Your task to perform on an android device: Clear the shopping cart on target.com. Search for asus zenbook on target.com, select the first entry, add it to the cart, then select checkout. Image 0: 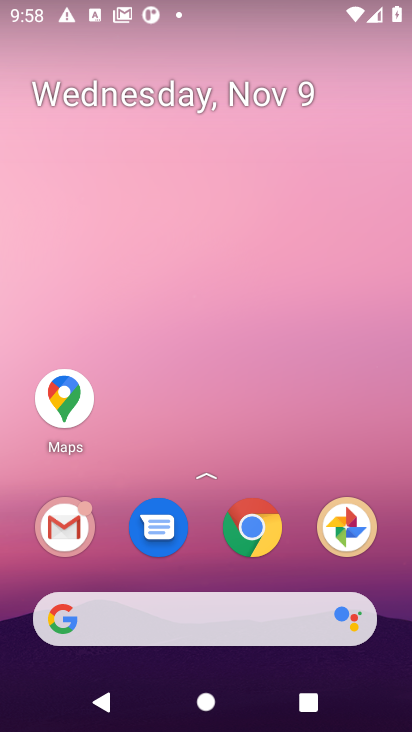
Step 0: click (252, 525)
Your task to perform on an android device: Clear the shopping cart on target.com. Search for asus zenbook on target.com, select the first entry, add it to the cart, then select checkout. Image 1: 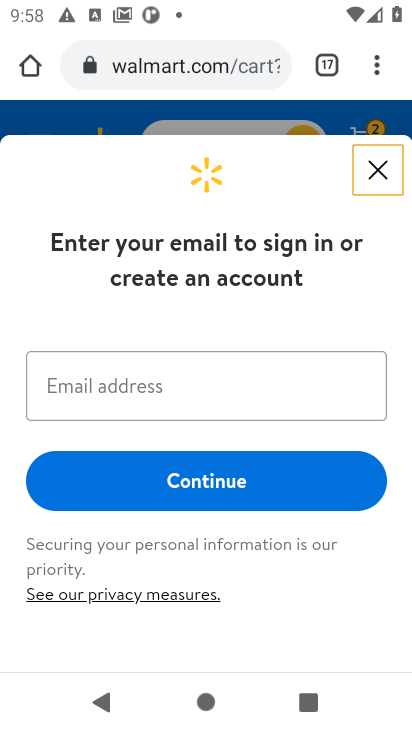
Step 1: click (222, 66)
Your task to perform on an android device: Clear the shopping cart on target.com. Search for asus zenbook on target.com, select the first entry, add it to the cart, then select checkout. Image 2: 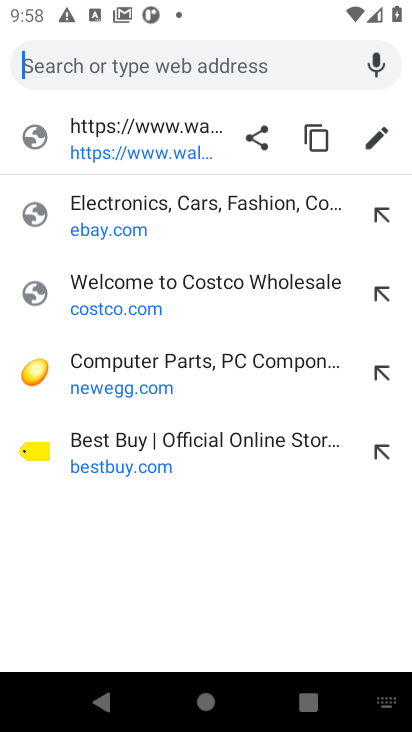
Step 2: type "target.com"
Your task to perform on an android device: Clear the shopping cart on target.com. Search for asus zenbook on target.com, select the first entry, add it to the cart, then select checkout. Image 3: 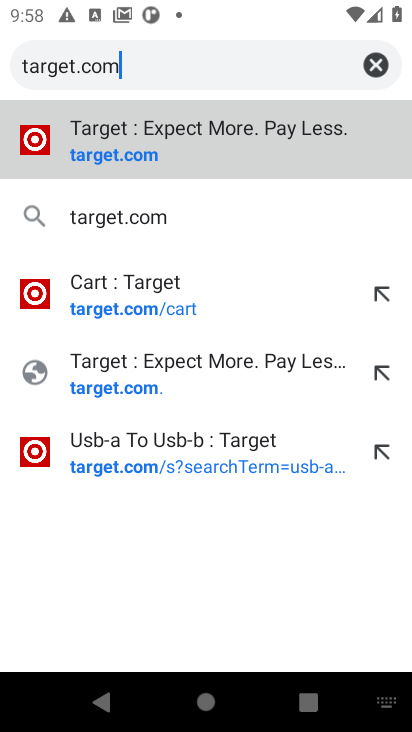
Step 3: click (136, 157)
Your task to perform on an android device: Clear the shopping cart on target.com. Search for asus zenbook on target.com, select the first entry, add it to the cart, then select checkout. Image 4: 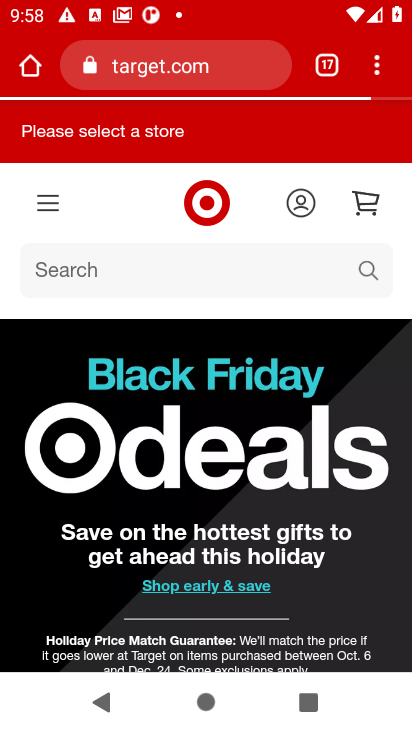
Step 4: click (367, 197)
Your task to perform on an android device: Clear the shopping cart on target.com. Search for asus zenbook on target.com, select the first entry, add it to the cart, then select checkout. Image 5: 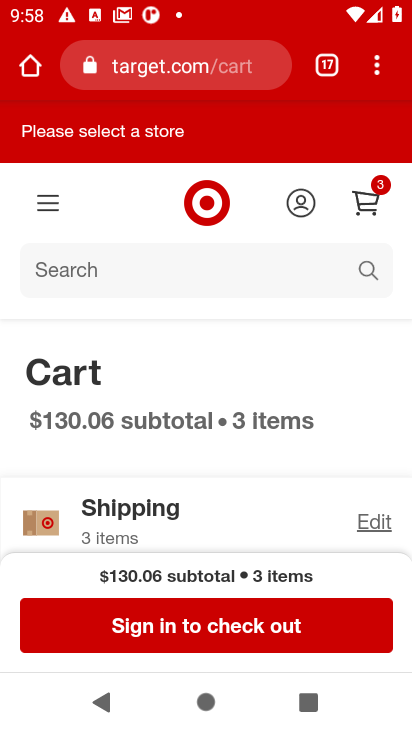
Step 5: drag from (220, 508) to (225, 216)
Your task to perform on an android device: Clear the shopping cart on target.com. Search for asus zenbook on target.com, select the first entry, add it to the cart, then select checkout. Image 6: 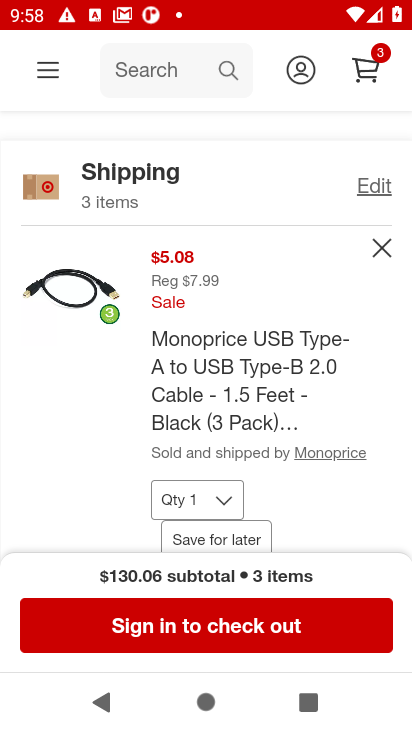
Step 6: click (378, 254)
Your task to perform on an android device: Clear the shopping cart on target.com. Search for asus zenbook on target.com, select the first entry, add it to the cart, then select checkout. Image 7: 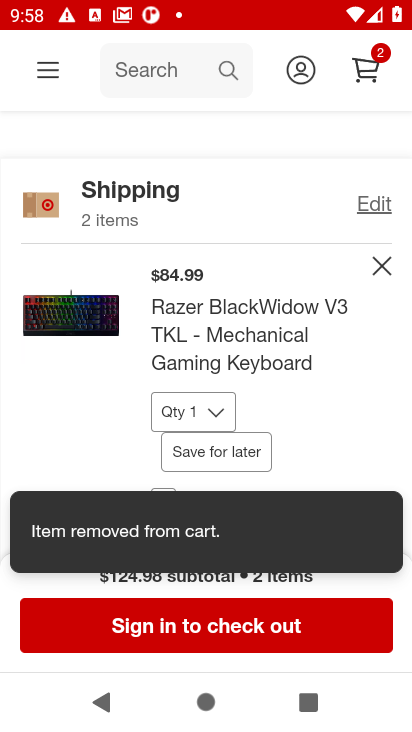
Step 7: click (379, 268)
Your task to perform on an android device: Clear the shopping cart on target.com. Search for asus zenbook on target.com, select the first entry, add it to the cart, then select checkout. Image 8: 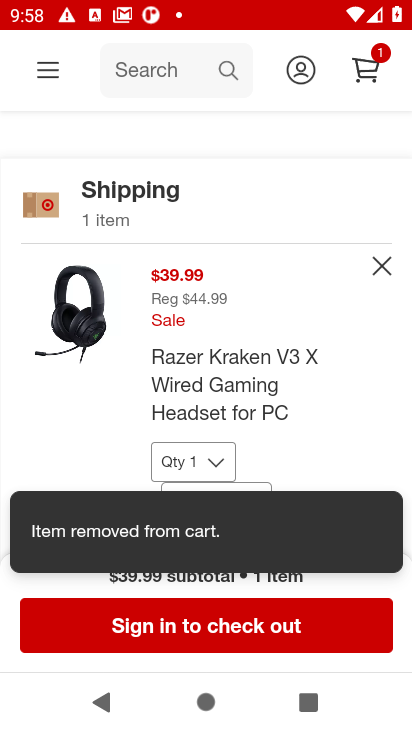
Step 8: click (379, 268)
Your task to perform on an android device: Clear the shopping cart on target.com. Search for asus zenbook on target.com, select the first entry, add it to the cart, then select checkout. Image 9: 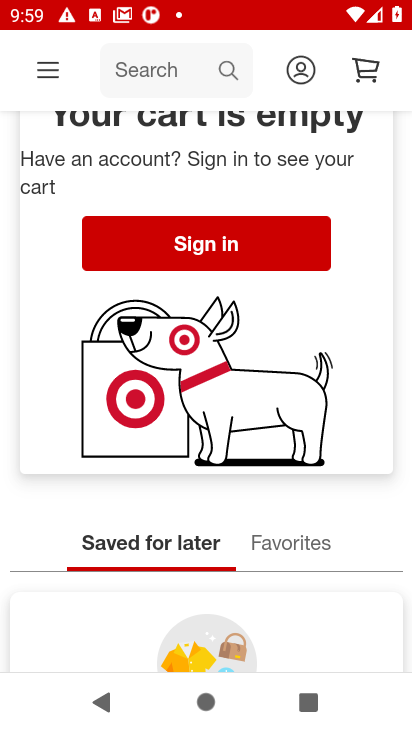
Step 9: click (228, 73)
Your task to perform on an android device: Clear the shopping cart on target.com. Search for asus zenbook on target.com, select the first entry, add it to the cart, then select checkout. Image 10: 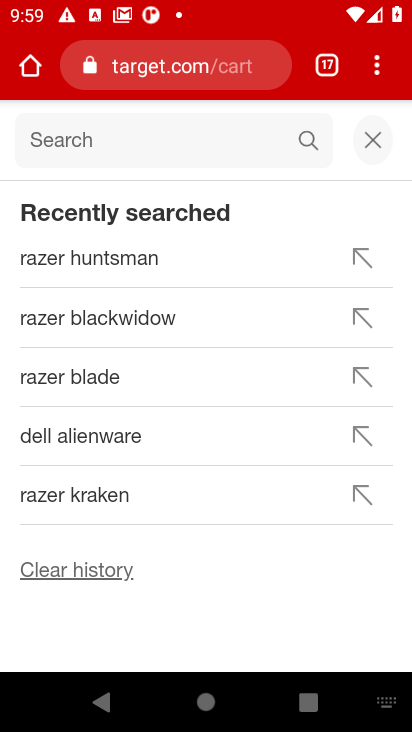
Step 10: type "asus zenbook "
Your task to perform on an android device: Clear the shopping cart on target.com. Search for asus zenbook on target.com, select the first entry, add it to the cart, then select checkout. Image 11: 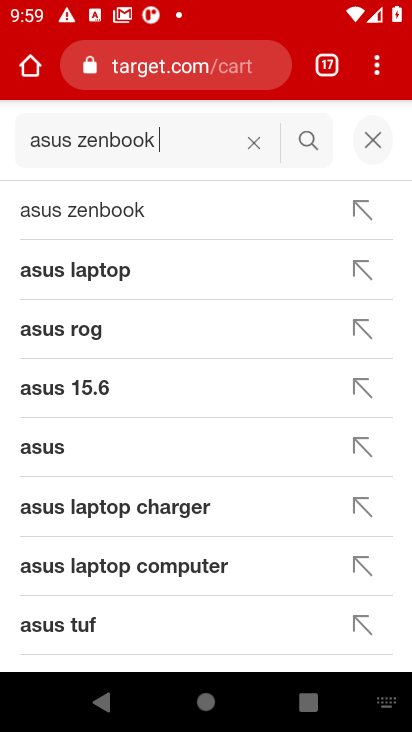
Step 11: click (109, 209)
Your task to perform on an android device: Clear the shopping cart on target.com. Search for asus zenbook on target.com, select the first entry, add it to the cart, then select checkout. Image 12: 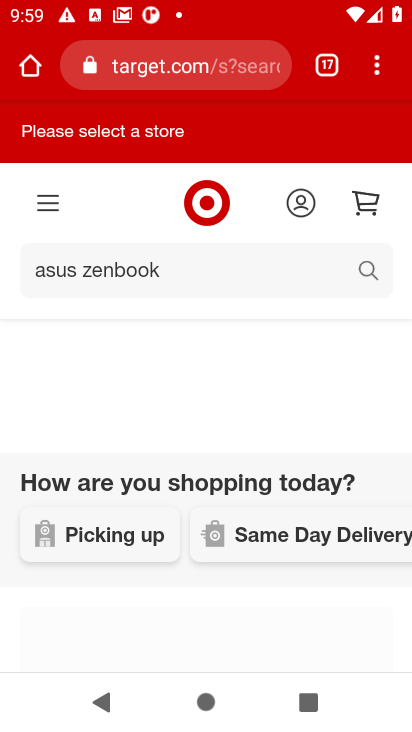
Step 12: drag from (168, 507) to (157, 181)
Your task to perform on an android device: Clear the shopping cart on target.com. Search for asus zenbook on target.com, select the first entry, add it to the cart, then select checkout. Image 13: 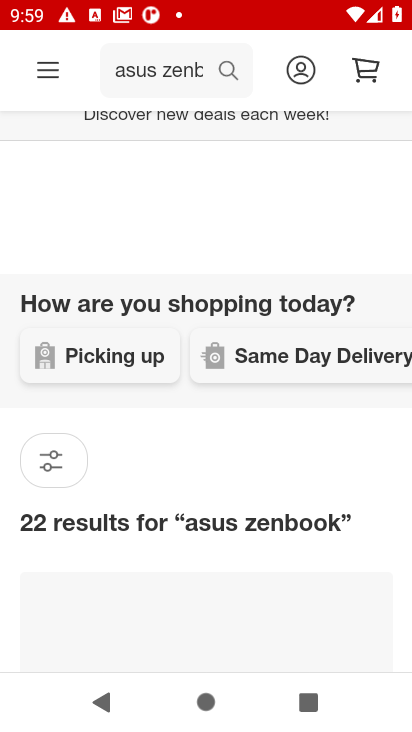
Step 13: drag from (137, 419) to (121, 124)
Your task to perform on an android device: Clear the shopping cart on target.com. Search for asus zenbook on target.com, select the first entry, add it to the cart, then select checkout. Image 14: 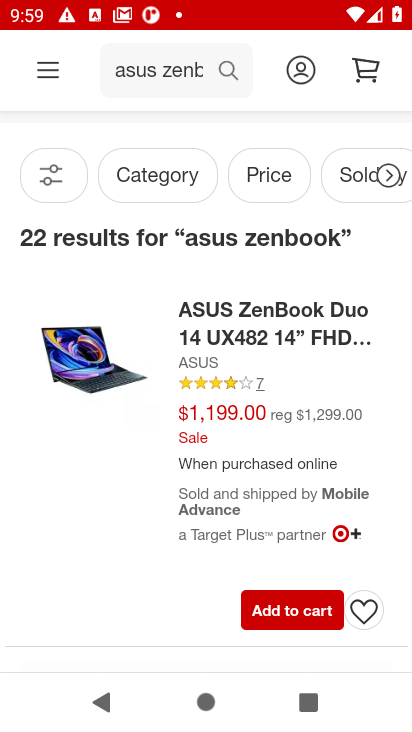
Step 14: click (297, 609)
Your task to perform on an android device: Clear the shopping cart on target.com. Search for asus zenbook on target.com, select the first entry, add it to the cart, then select checkout. Image 15: 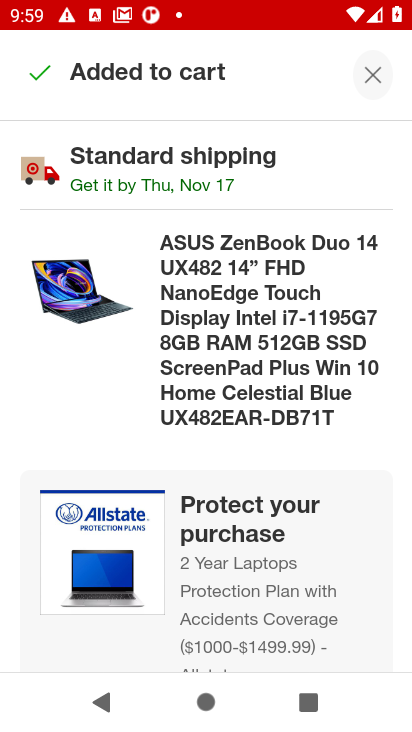
Step 15: click (372, 80)
Your task to perform on an android device: Clear the shopping cart on target.com. Search for asus zenbook on target.com, select the first entry, add it to the cart, then select checkout. Image 16: 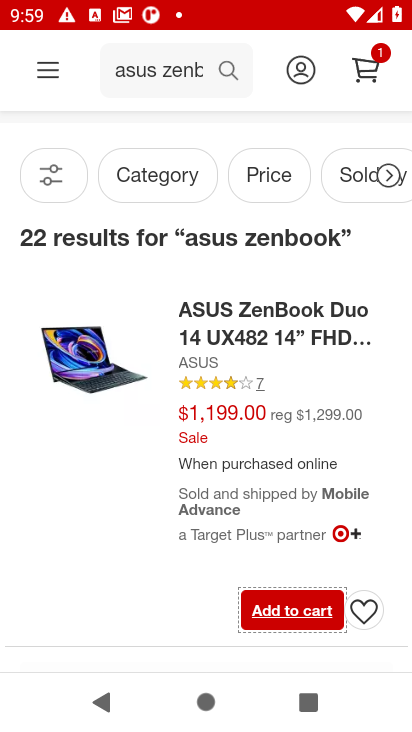
Step 16: click (368, 72)
Your task to perform on an android device: Clear the shopping cart on target.com. Search for asus zenbook on target.com, select the first entry, add it to the cart, then select checkout. Image 17: 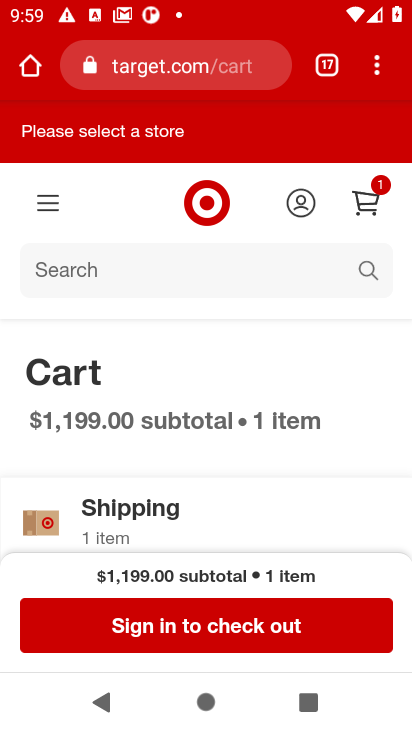
Step 17: click (222, 618)
Your task to perform on an android device: Clear the shopping cart on target.com. Search for asus zenbook on target.com, select the first entry, add it to the cart, then select checkout. Image 18: 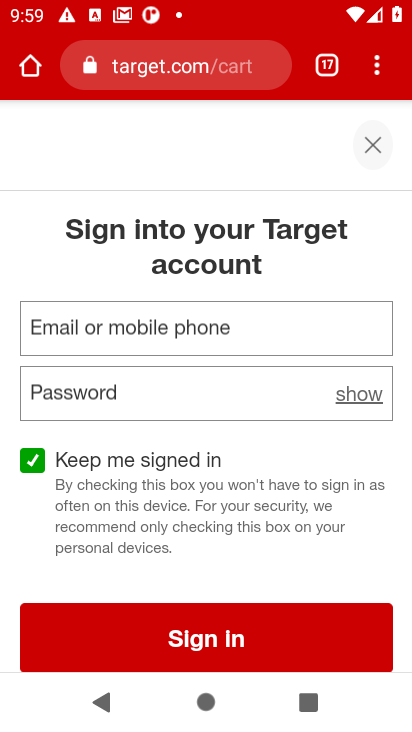
Step 18: task complete